Your task to perform on an android device: Open Reddit.com Image 0: 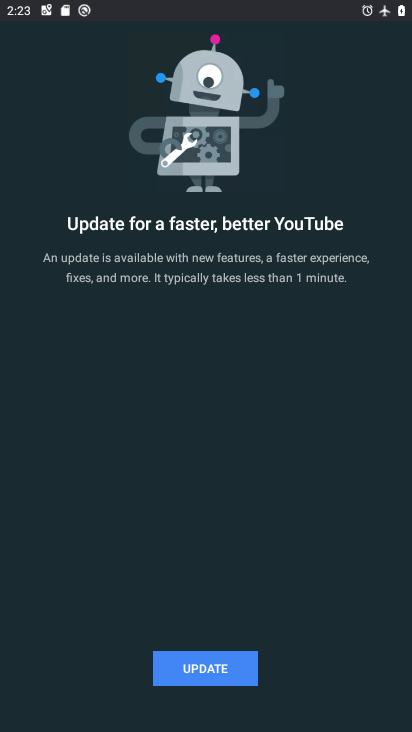
Step 0: press home button
Your task to perform on an android device: Open Reddit.com Image 1: 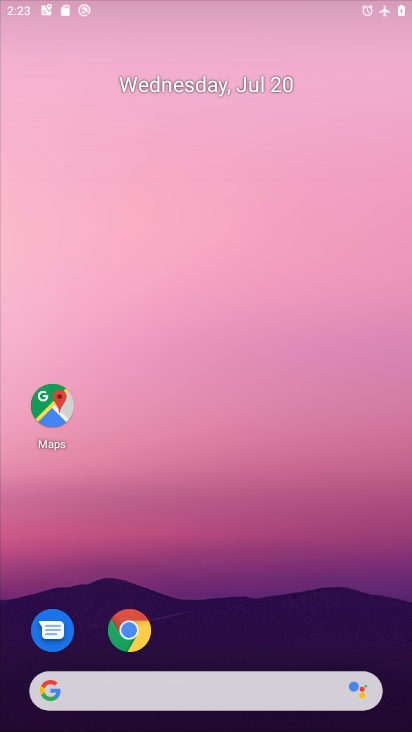
Step 1: drag from (219, 527) to (214, 3)
Your task to perform on an android device: Open Reddit.com Image 2: 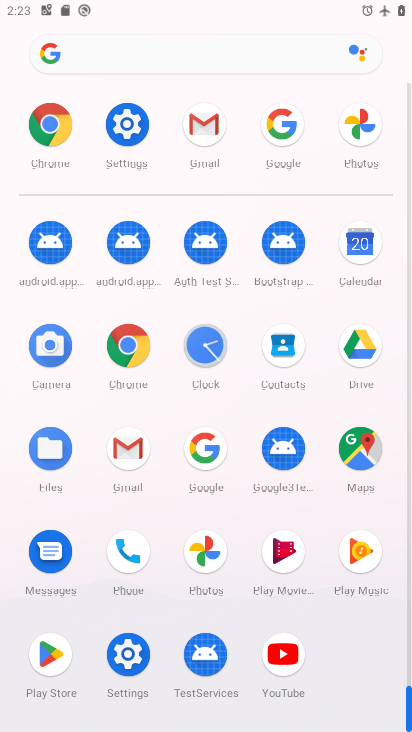
Step 2: click (65, 141)
Your task to perform on an android device: Open Reddit.com Image 3: 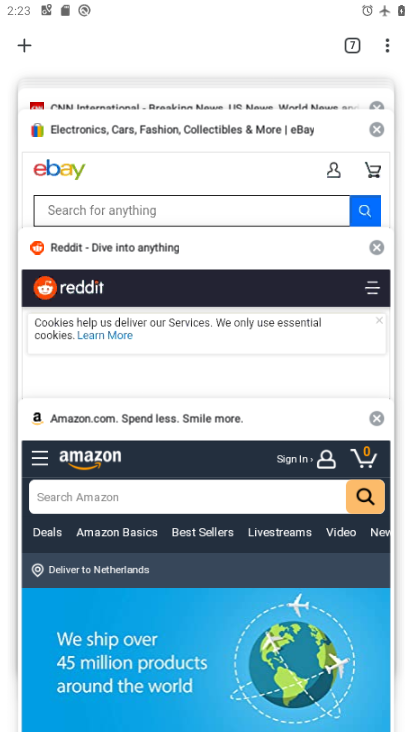
Step 3: click (100, 300)
Your task to perform on an android device: Open Reddit.com Image 4: 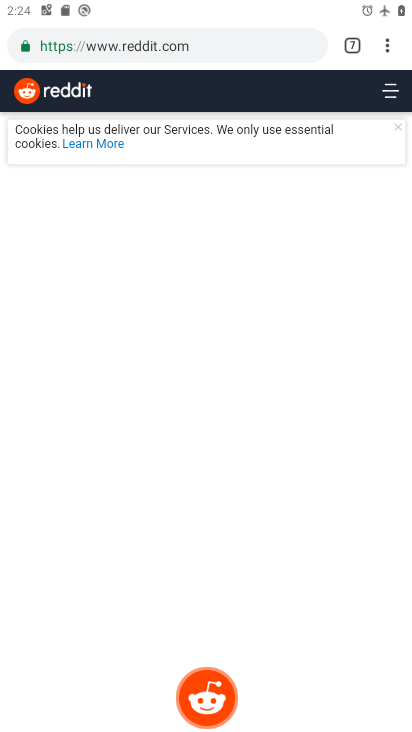
Step 4: task complete